Your task to perform on an android device: Go to Wikipedia Image 0: 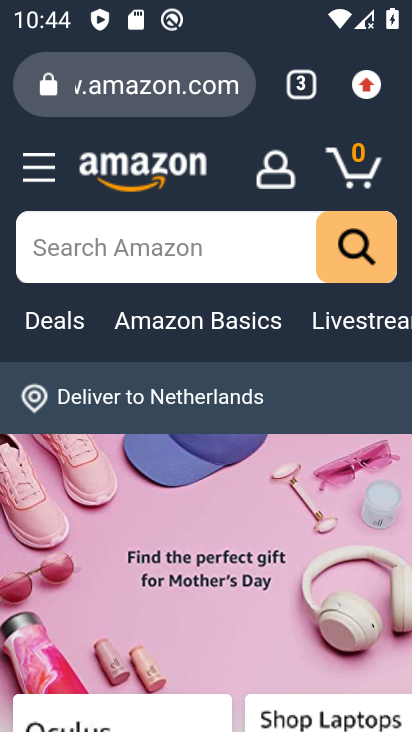
Step 0: press home button
Your task to perform on an android device: Go to Wikipedia Image 1: 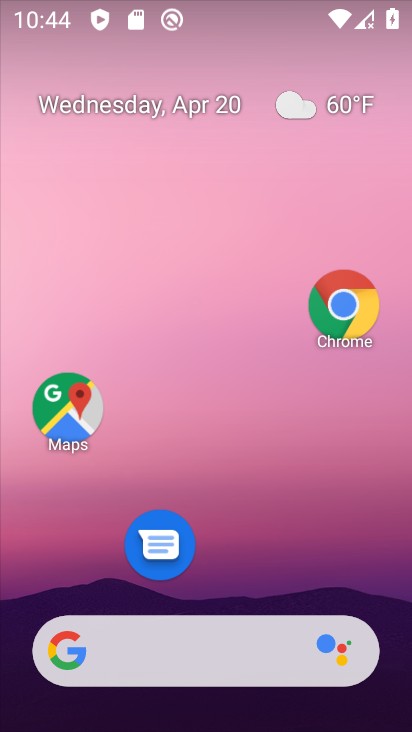
Step 1: drag from (208, 651) to (194, 360)
Your task to perform on an android device: Go to Wikipedia Image 2: 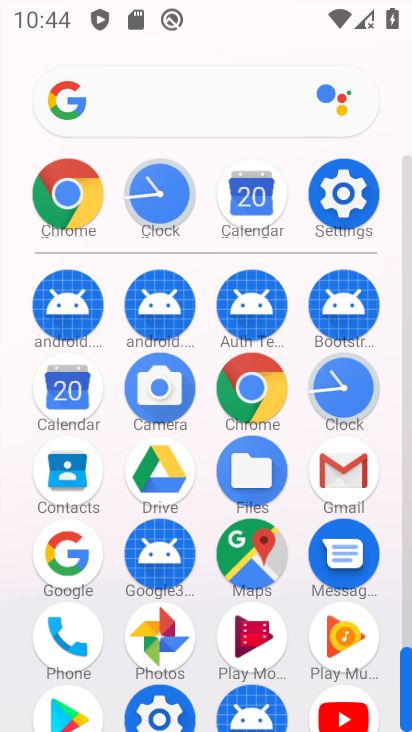
Step 2: click (280, 401)
Your task to perform on an android device: Go to Wikipedia Image 3: 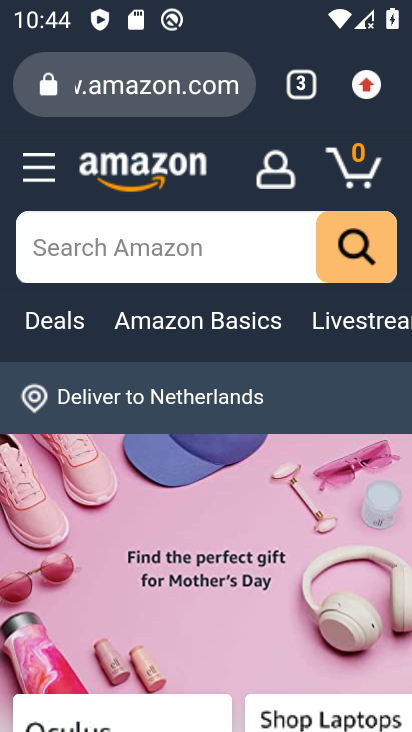
Step 3: drag from (299, 85) to (232, 429)
Your task to perform on an android device: Go to Wikipedia Image 4: 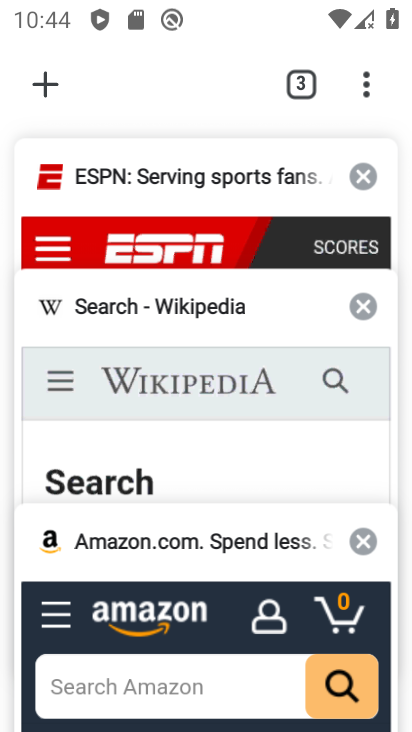
Step 4: click (48, 90)
Your task to perform on an android device: Go to Wikipedia Image 5: 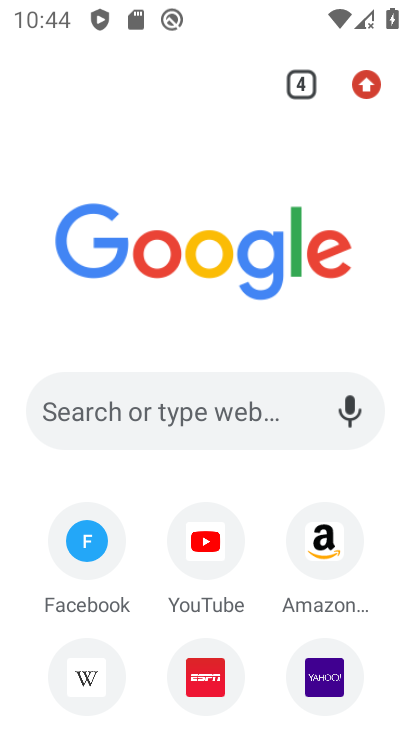
Step 5: click (108, 679)
Your task to perform on an android device: Go to Wikipedia Image 6: 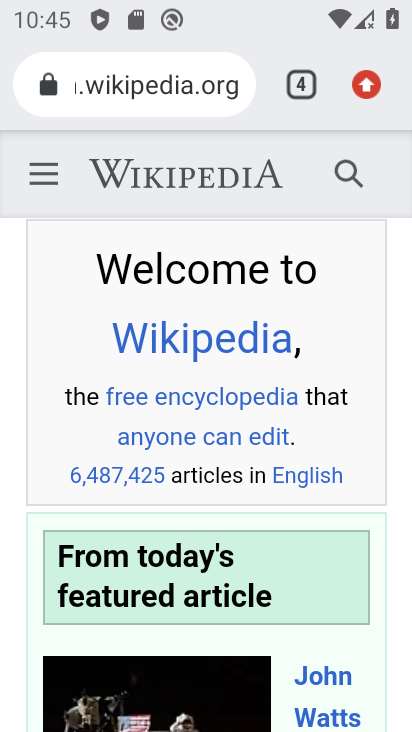
Step 6: task complete